Your task to perform on an android device: find which apps use the phone's location Image 0: 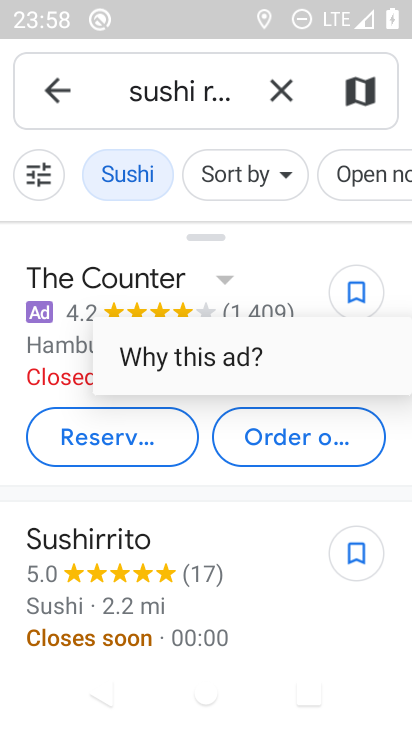
Step 0: press home button
Your task to perform on an android device: find which apps use the phone's location Image 1: 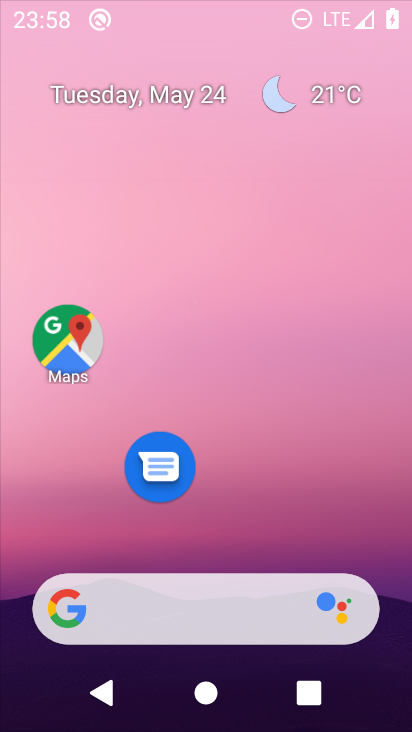
Step 1: drag from (241, 630) to (235, 212)
Your task to perform on an android device: find which apps use the phone's location Image 2: 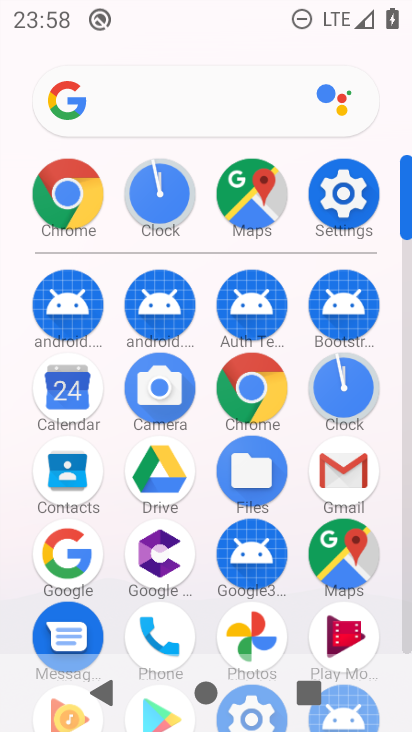
Step 2: click (343, 203)
Your task to perform on an android device: find which apps use the phone's location Image 3: 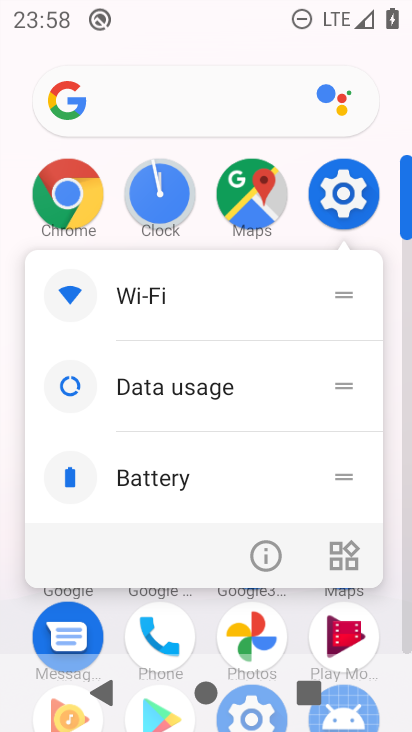
Step 3: click (267, 551)
Your task to perform on an android device: find which apps use the phone's location Image 4: 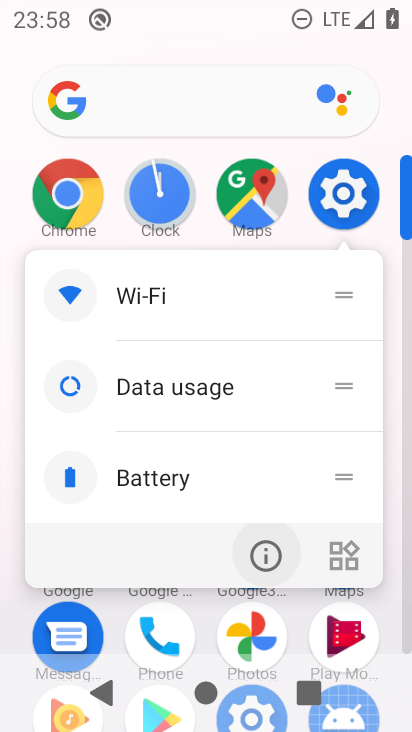
Step 4: click (267, 551)
Your task to perform on an android device: find which apps use the phone's location Image 5: 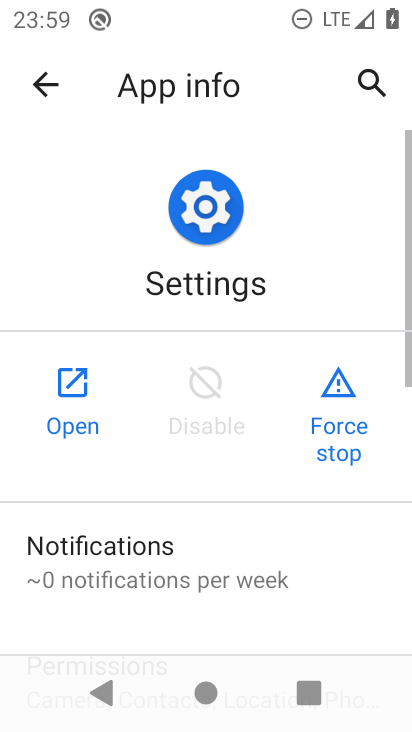
Step 5: click (79, 400)
Your task to perform on an android device: find which apps use the phone's location Image 6: 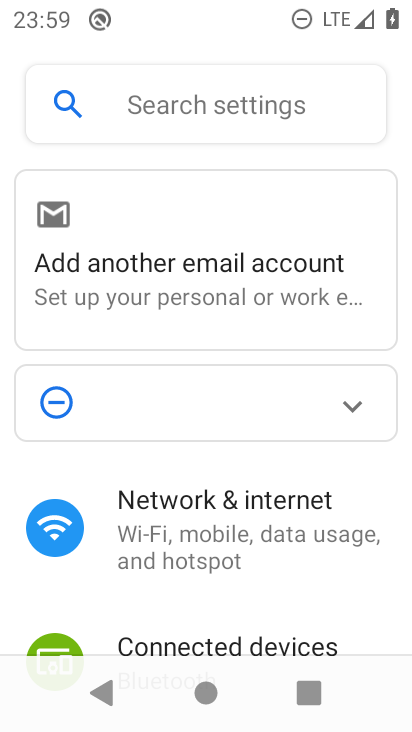
Step 6: drag from (289, 596) to (289, 299)
Your task to perform on an android device: find which apps use the phone's location Image 7: 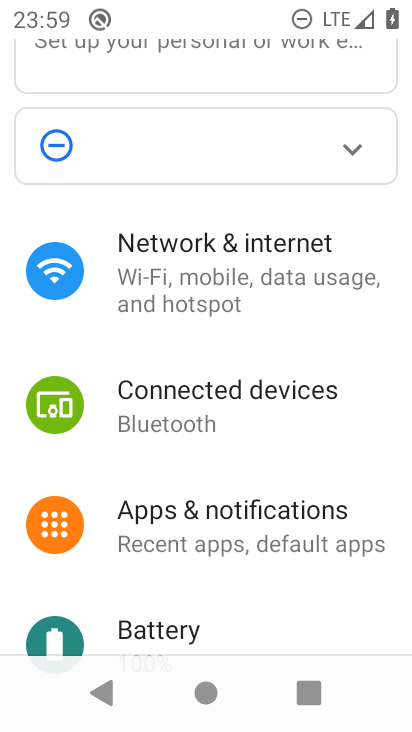
Step 7: click (203, 504)
Your task to perform on an android device: find which apps use the phone's location Image 8: 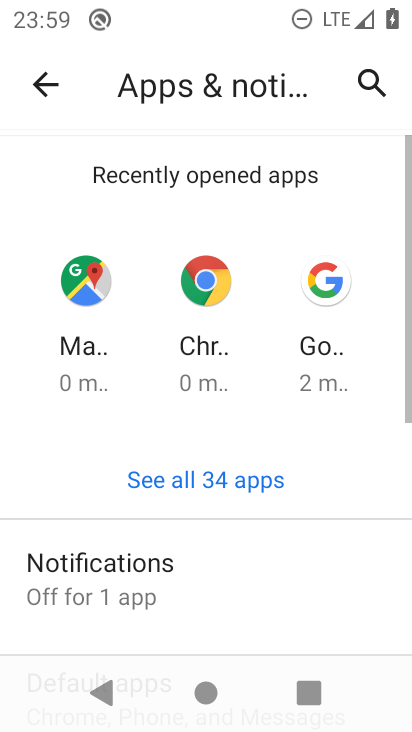
Step 8: drag from (224, 606) to (238, 253)
Your task to perform on an android device: find which apps use the phone's location Image 9: 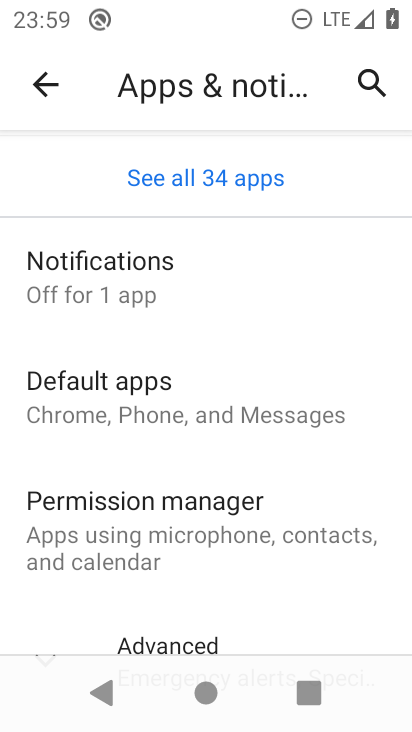
Step 9: click (182, 270)
Your task to perform on an android device: find which apps use the phone's location Image 10: 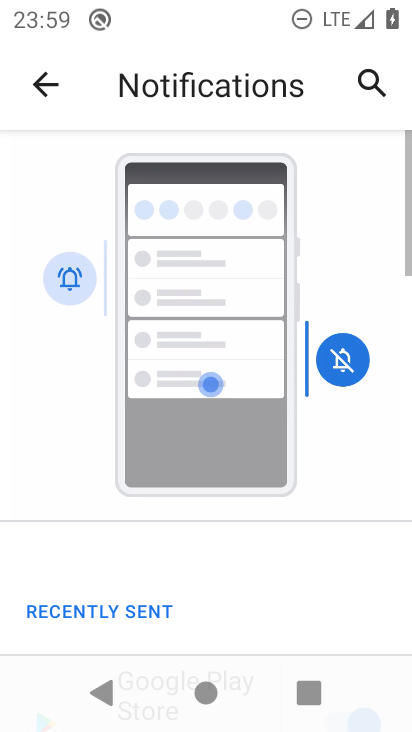
Step 10: drag from (227, 541) to (219, 294)
Your task to perform on an android device: find which apps use the phone's location Image 11: 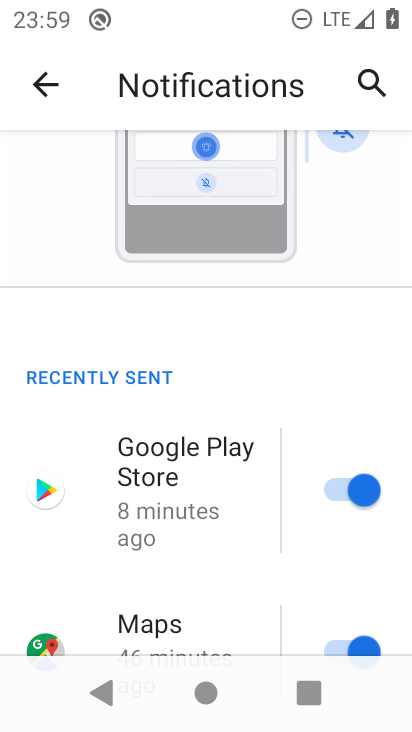
Step 11: drag from (252, 549) to (268, 245)
Your task to perform on an android device: find which apps use the phone's location Image 12: 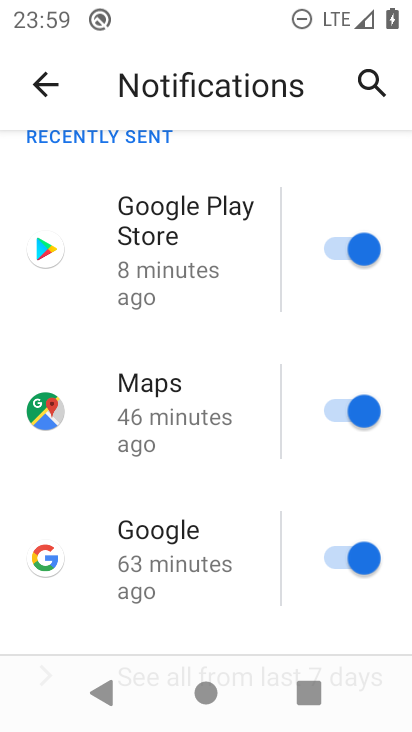
Step 12: drag from (208, 489) to (228, 209)
Your task to perform on an android device: find which apps use the phone's location Image 13: 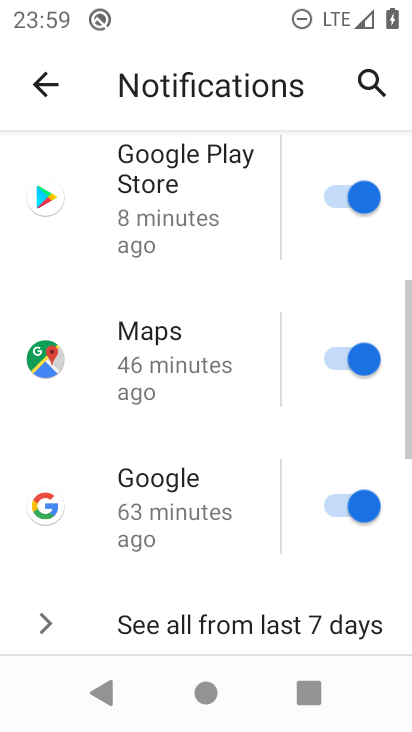
Step 13: drag from (201, 311) to (360, 719)
Your task to perform on an android device: find which apps use the phone's location Image 14: 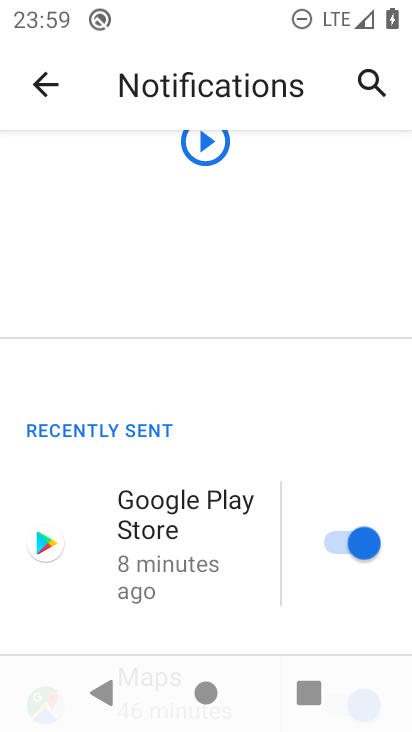
Step 14: click (41, 88)
Your task to perform on an android device: find which apps use the phone's location Image 15: 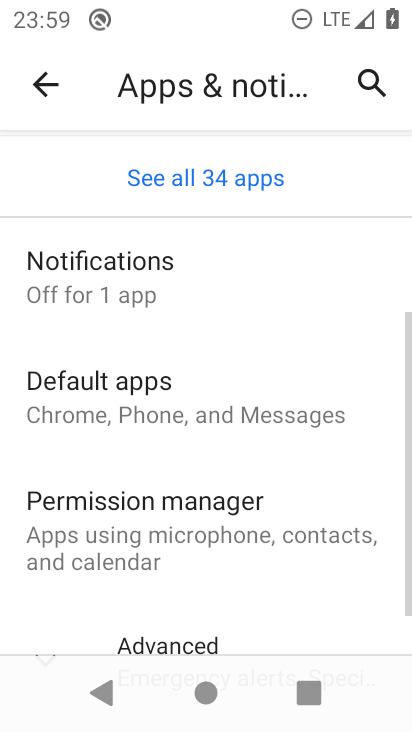
Step 15: click (142, 413)
Your task to perform on an android device: find which apps use the phone's location Image 16: 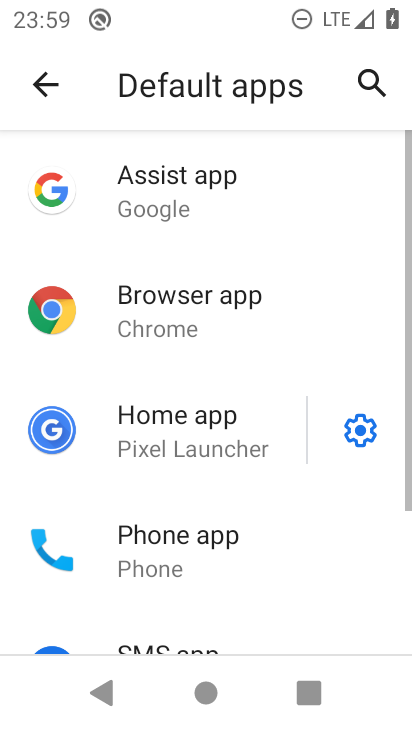
Step 16: task complete